Your task to perform on an android device: Turn off the flashlight Image 0: 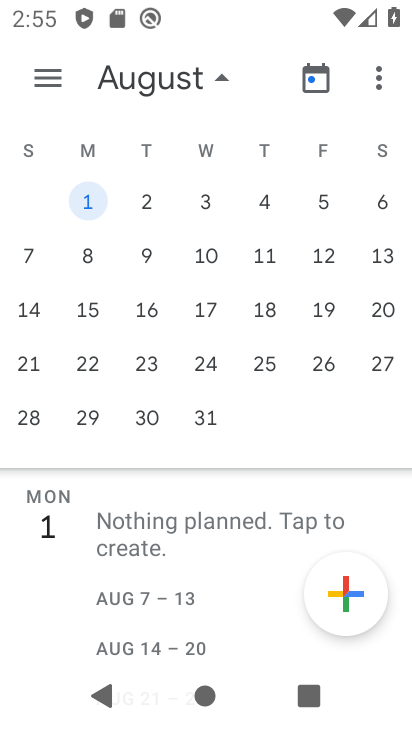
Step 0: press home button
Your task to perform on an android device: Turn off the flashlight Image 1: 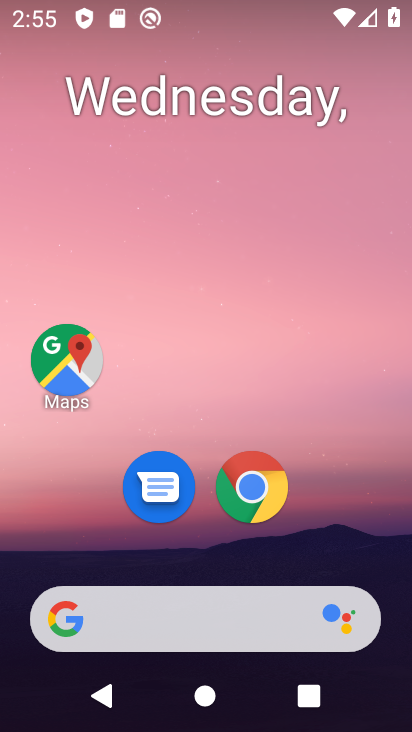
Step 1: task complete